Your task to perform on an android device: Go to notification settings Image 0: 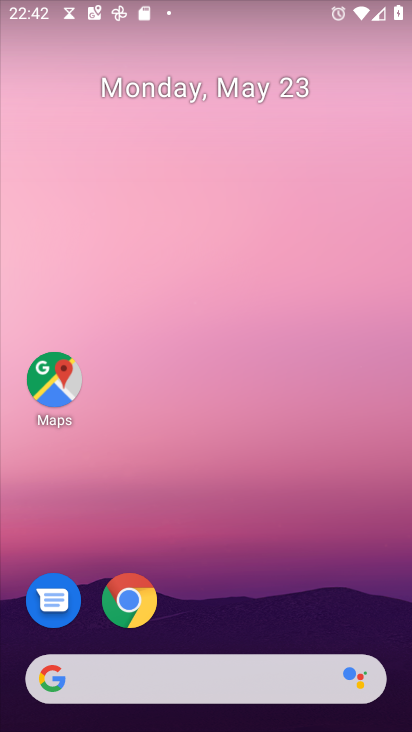
Step 0: drag from (219, 708) to (214, 85)
Your task to perform on an android device: Go to notification settings Image 1: 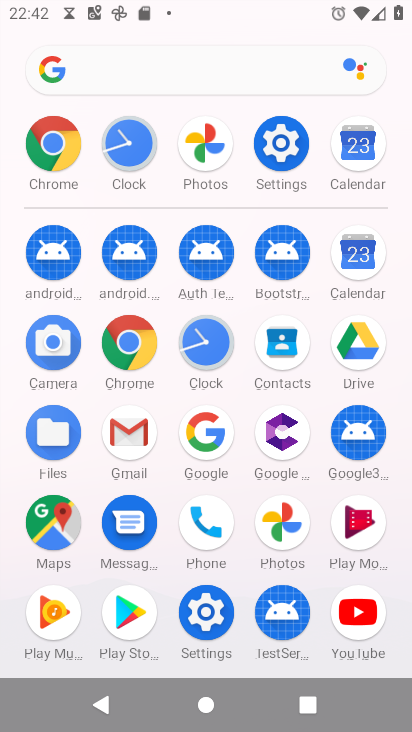
Step 1: click (278, 142)
Your task to perform on an android device: Go to notification settings Image 2: 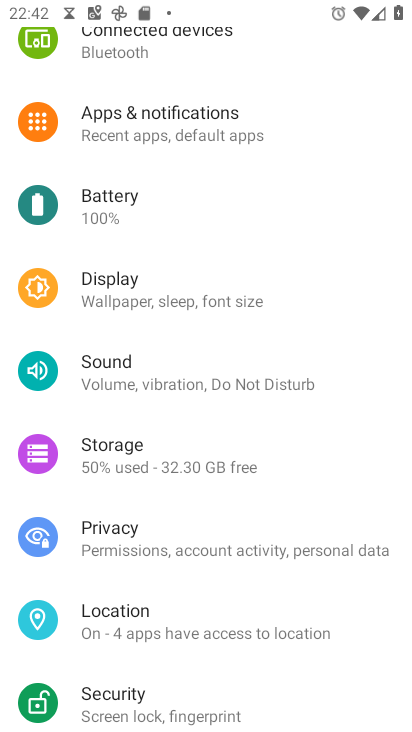
Step 2: click (179, 127)
Your task to perform on an android device: Go to notification settings Image 3: 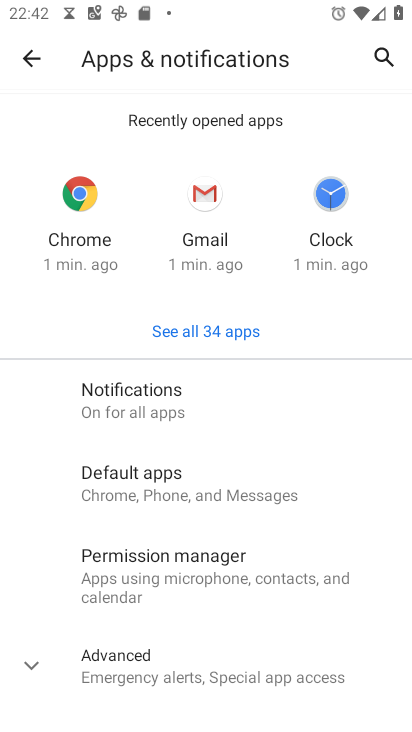
Step 3: click (136, 396)
Your task to perform on an android device: Go to notification settings Image 4: 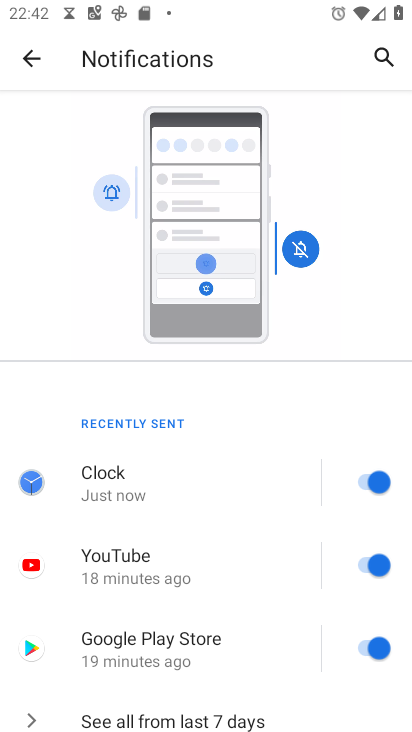
Step 4: task complete